Your task to perform on an android device: Open the calendar and show me this week's events? Image 0: 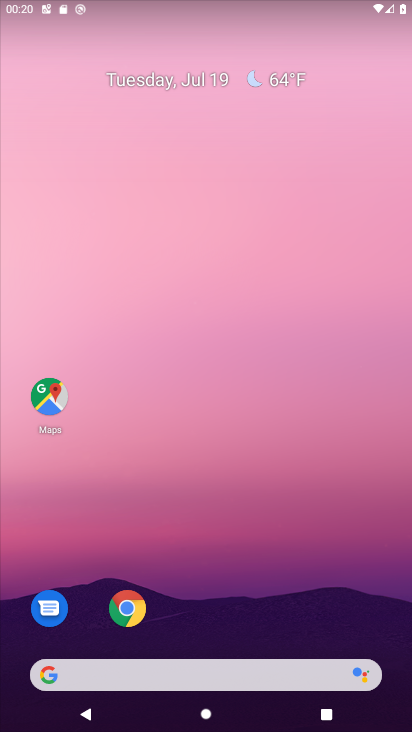
Step 0: drag from (210, 594) to (258, 149)
Your task to perform on an android device: Open the calendar and show me this week's events? Image 1: 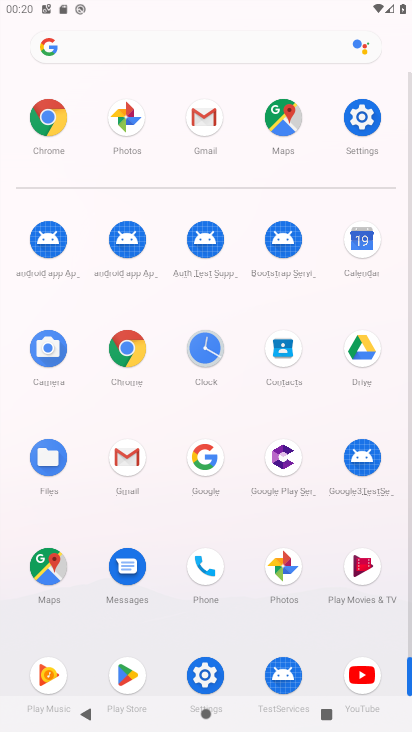
Step 1: click (366, 244)
Your task to perform on an android device: Open the calendar and show me this week's events? Image 2: 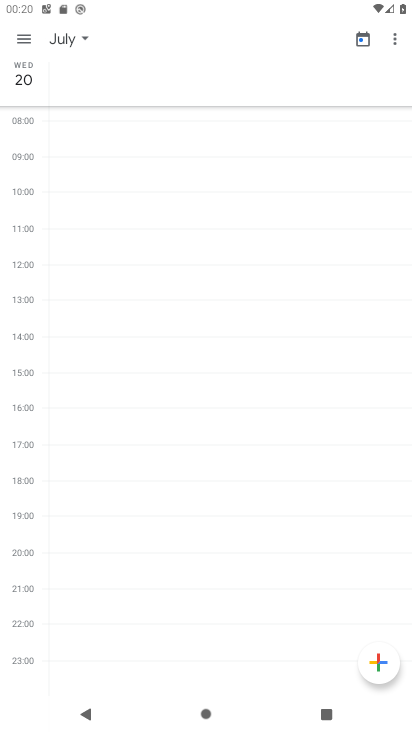
Step 2: click (31, 43)
Your task to perform on an android device: Open the calendar and show me this week's events? Image 3: 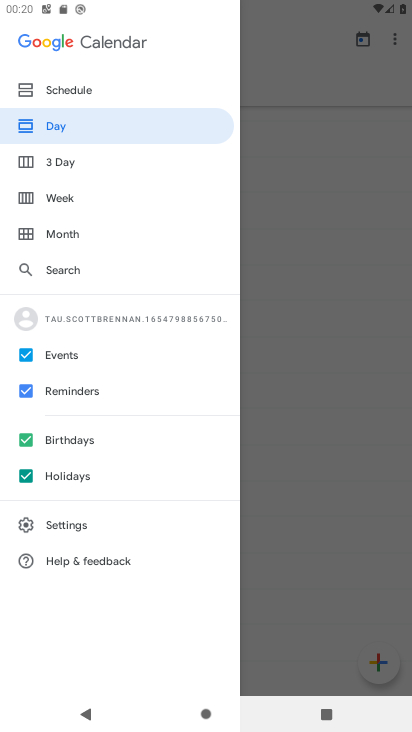
Step 3: click (68, 202)
Your task to perform on an android device: Open the calendar and show me this week's events? Image 4: 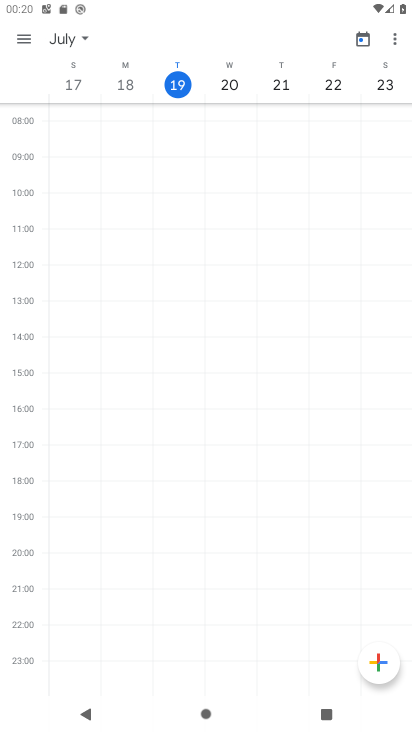
Step 4: task complete